Your task to perform on an android device: Check the weather Image 0: 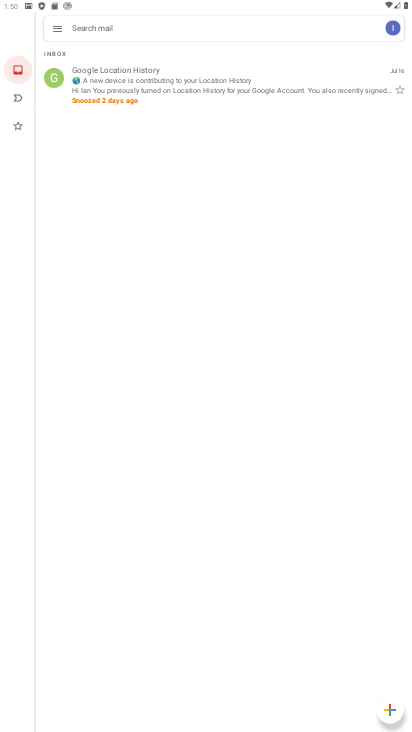
Step 0: press home button
Your task to perform on an android device: Check the weather Image 1: 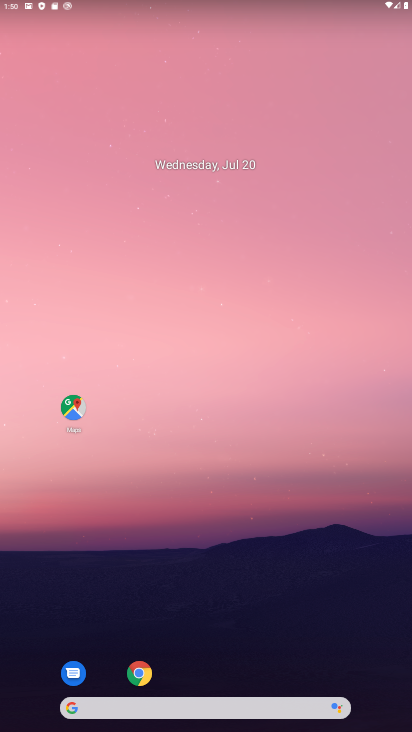
Step 1: drag from (199, 672) to (197, 129)
Your task to perform on an android device: Check the weather Image 2: 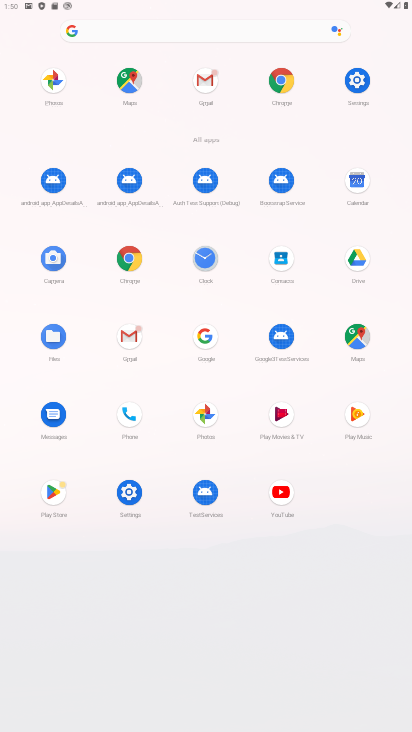
Step 2: click (202, 334)
Your task to perform on an android device: Check the weather Image 3: 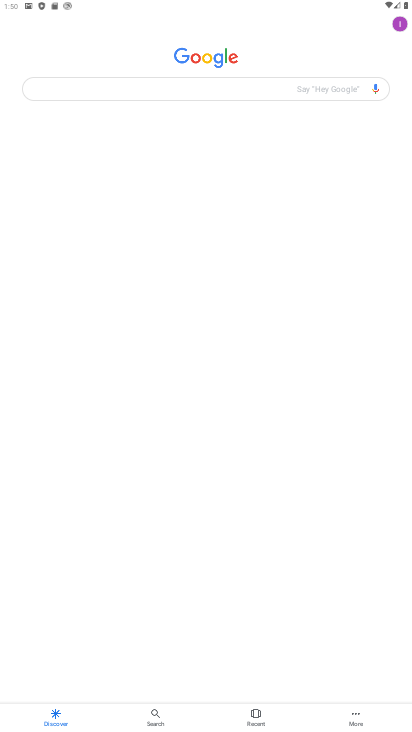
Step 3: click (137, 92)
Your task to perform on an android device: Check the weather Image 4: 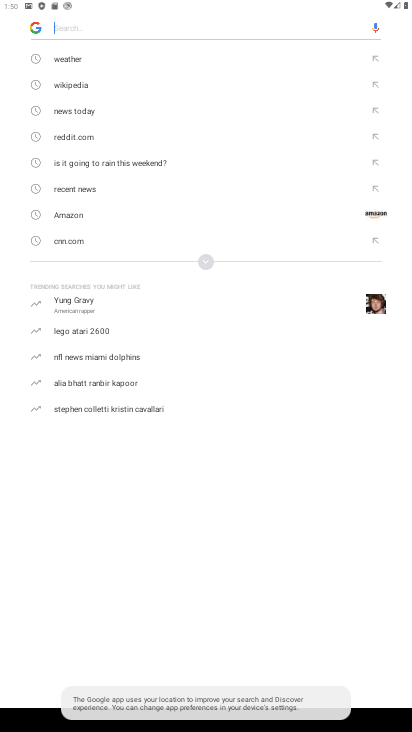
Step 4: click (72, 54)
Your task to perform on an android device: Check the weather Image 5: 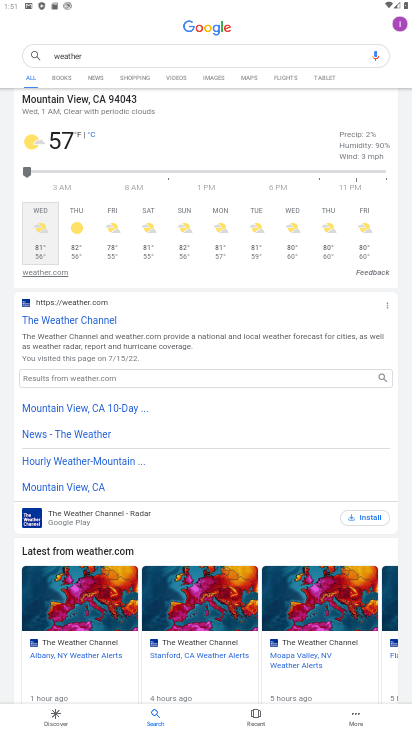
Step 5: task complete